Your task to perform on an android device: Show me recent news Image 0: 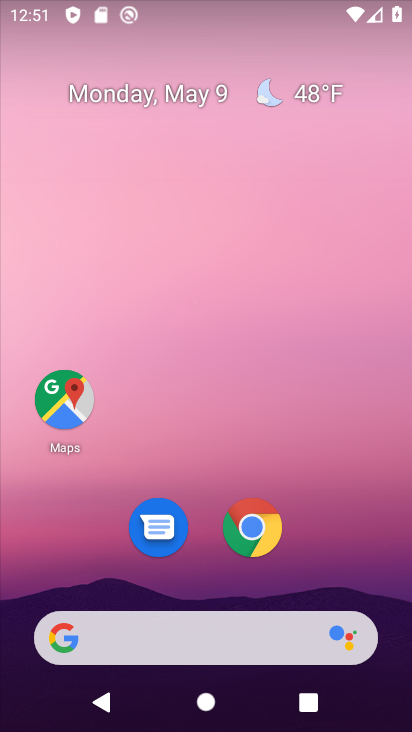
Step 0: drag from (225, 565) to (301, 26)
Your task to perform on an android device: Show me recent news Image 1: 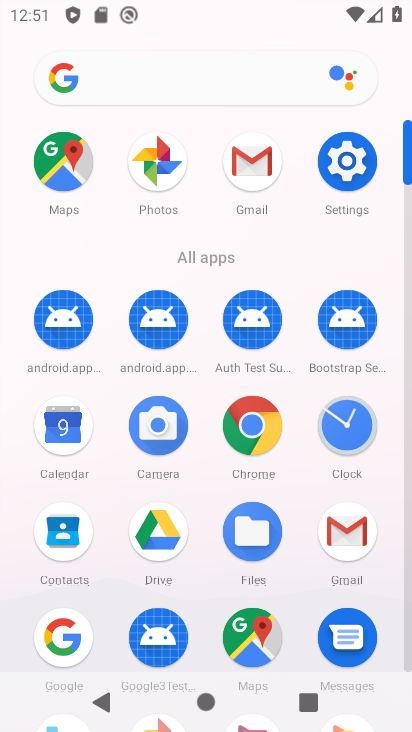
Step 1: click (232, 96)
Your task to perform on an android device: Show me recent news Image 2: 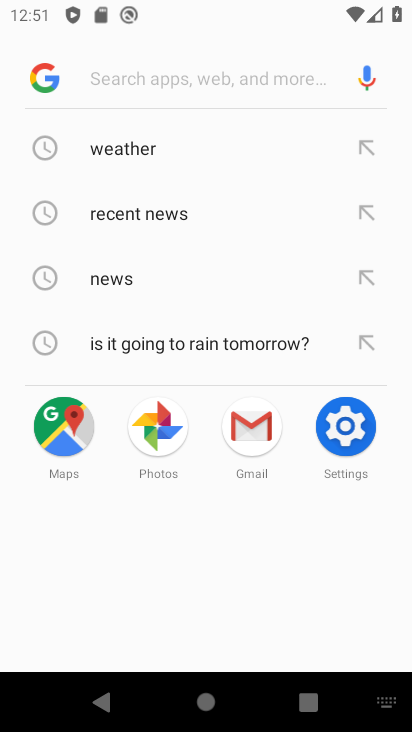
Step 2: click (180, 217)
Your task to perform on an android device: Show me recent news Image 3: 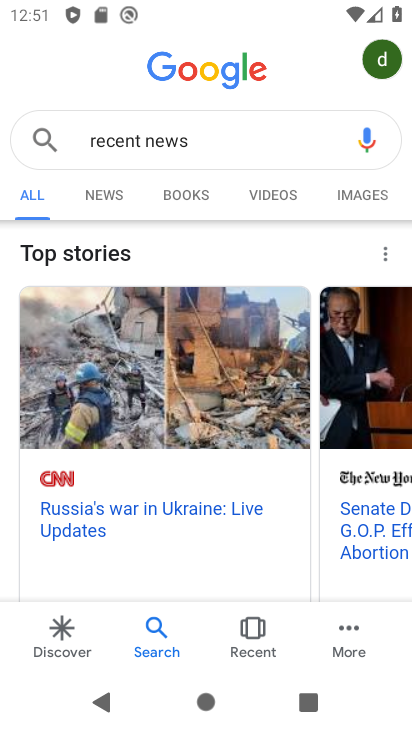
Step 3: task complete